Your task to perform on an android device: set the stopwatch Image 0: 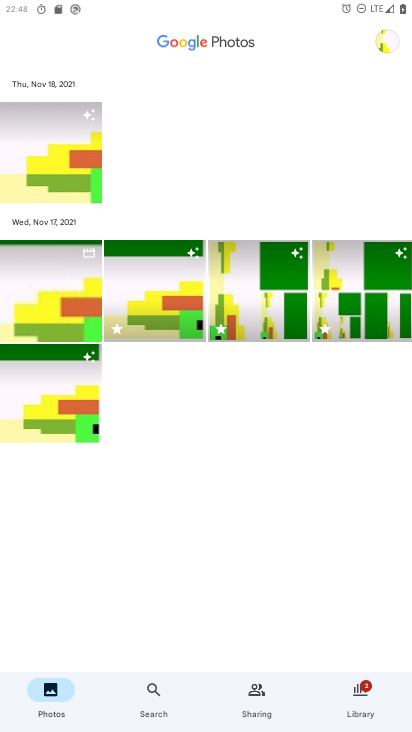
Step 0: press home button
Your task to perform on an android device: set the stopwatch Image 1: 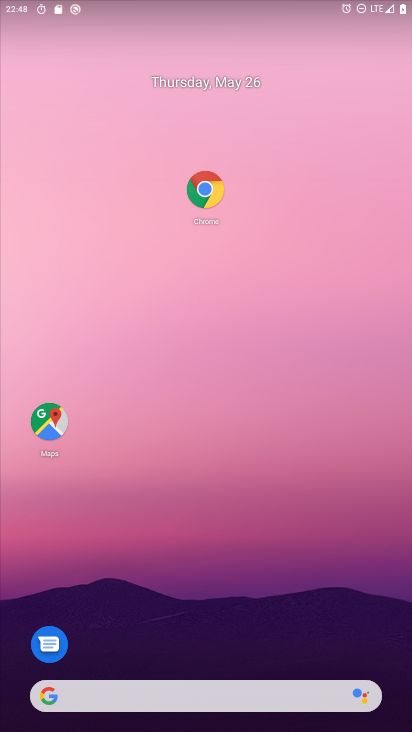
Step 1: drag from (151, 585) to (136, 250)
Your task to perform on an android device: set the stopwatch Image 2: 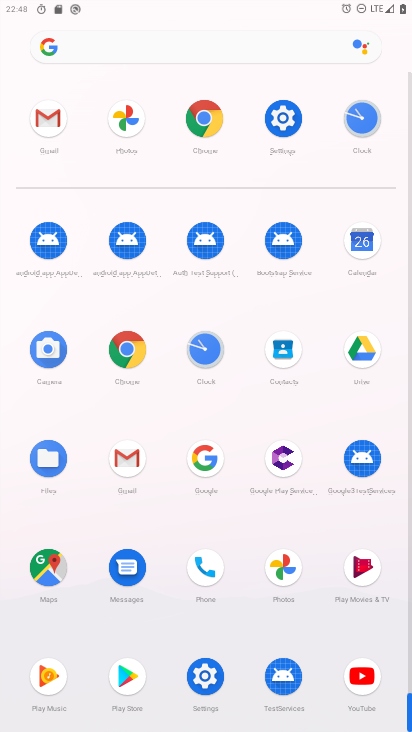
Step 2: click (204, 351)
Your task to perform on an android device: set the stopwatch Image 3: 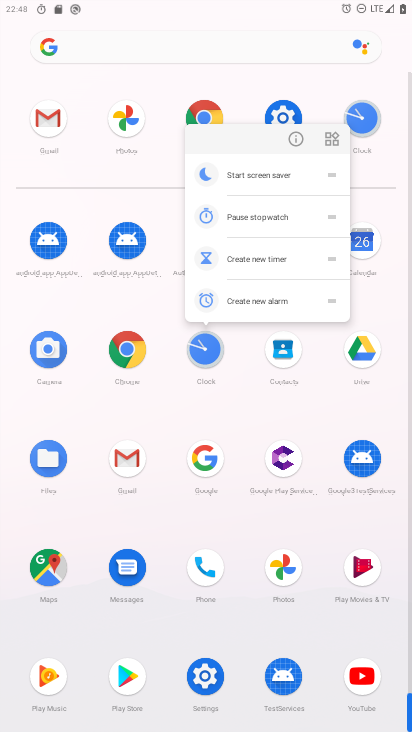
Step 3: click (297, 130)
Your task to perform on an android device: set the stopwatch Image 4: 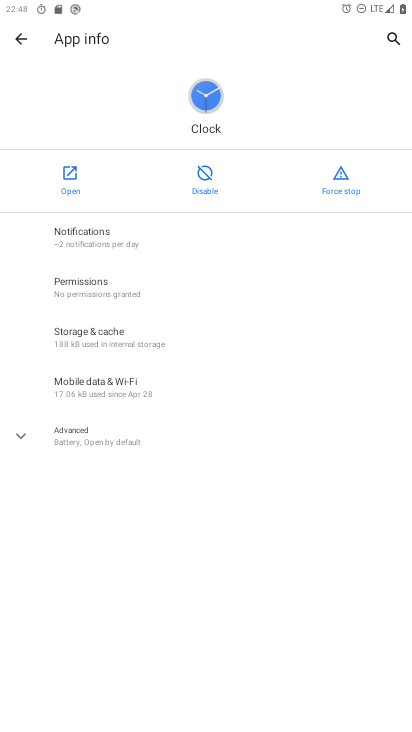
Step 4: click (66, 186)
Your task to perform on an android device: set the stopwatch Image 5: 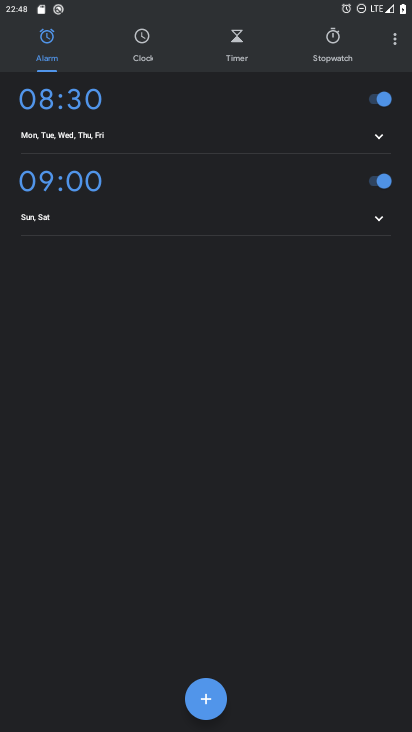
Step 5: click (336, 30)
Your task to perform on an android device: set the stopwatch Image 6: 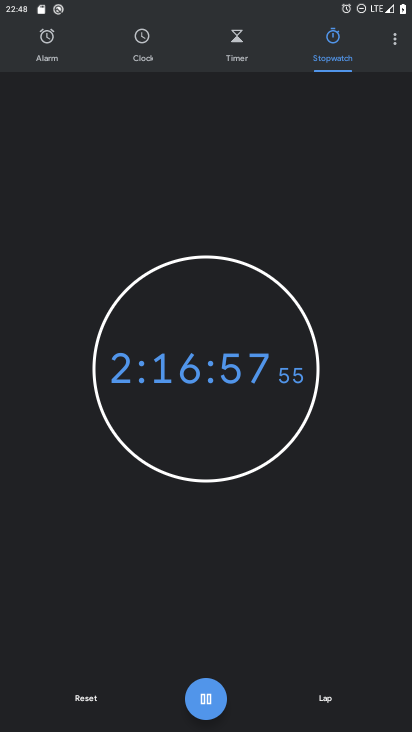
Step 6: click (101, 711)
Your task to perform on an android device: set the stopwatch Image 7: 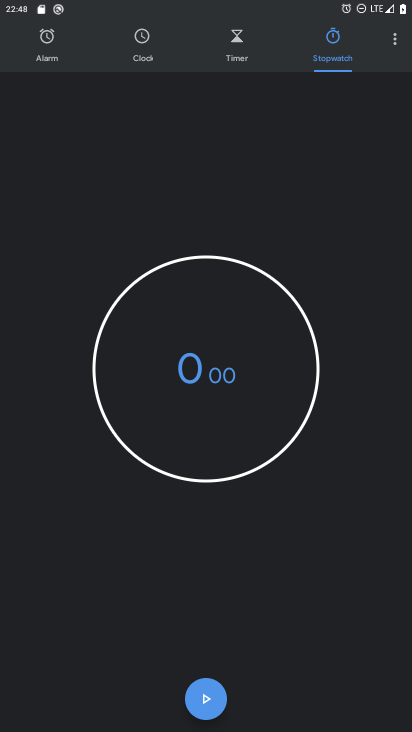
Step 7: click (184, 698)
Your task to perform on an android device: set the stopwatch Image 8: 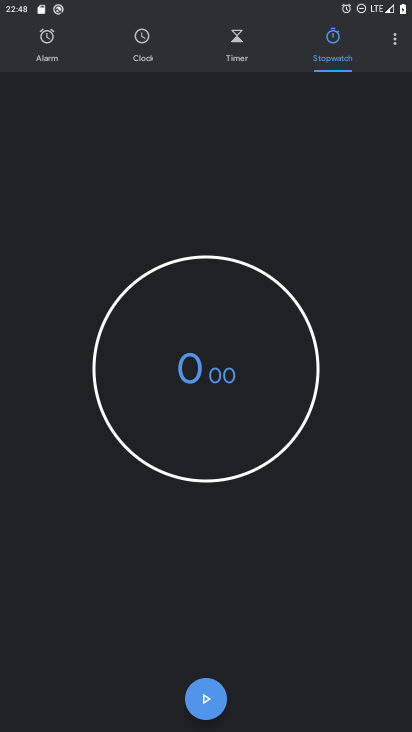
Step 8: click (214, 697)
Your task to perform on an android device: set the stopwatch Image 9: 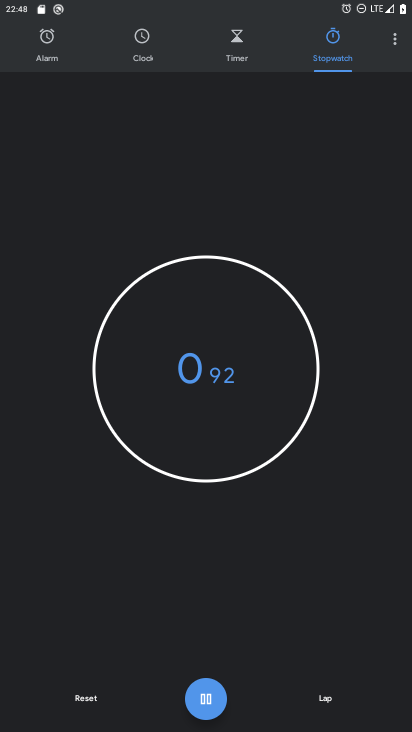
Step 9: task complete